Your task to perform on an android device: open chrome privacy settings Image 0: 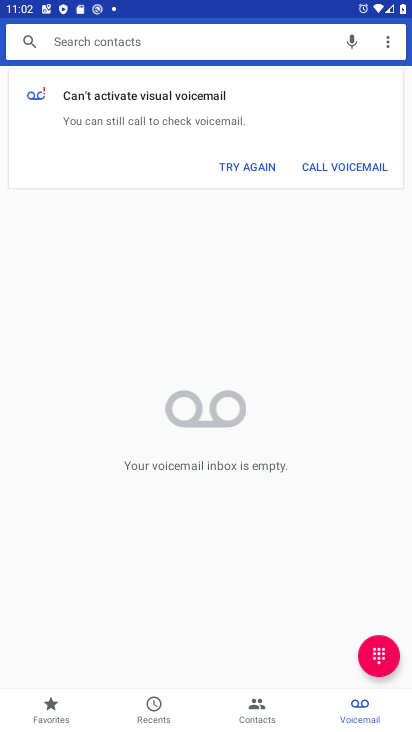
Step 0: press home button
Your task to perform on an android device: open chrome privacy settings Image 1: 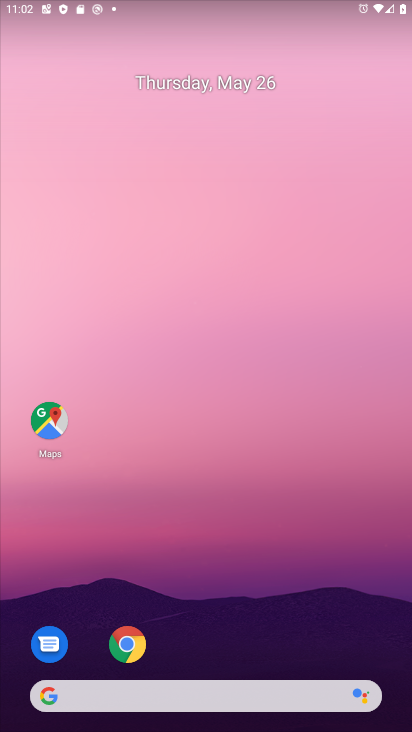
Step 1: click (139, 644)
Your task to perform on an android device: open chrome privacy settings Image 2: 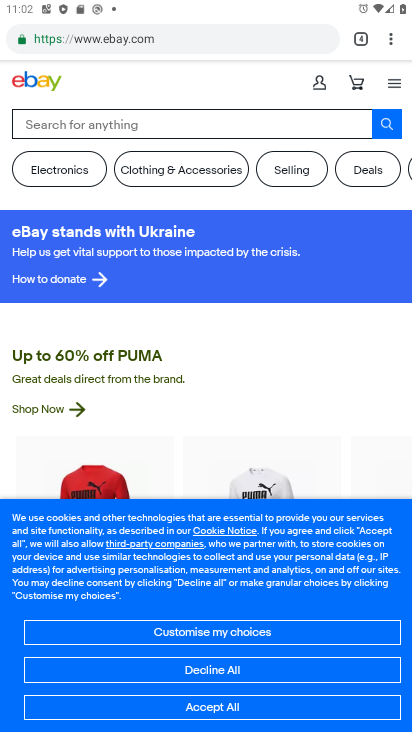
Step 2: click (392, 41)
Your task to perform on an android device: open chrome privacy settings Image 3: 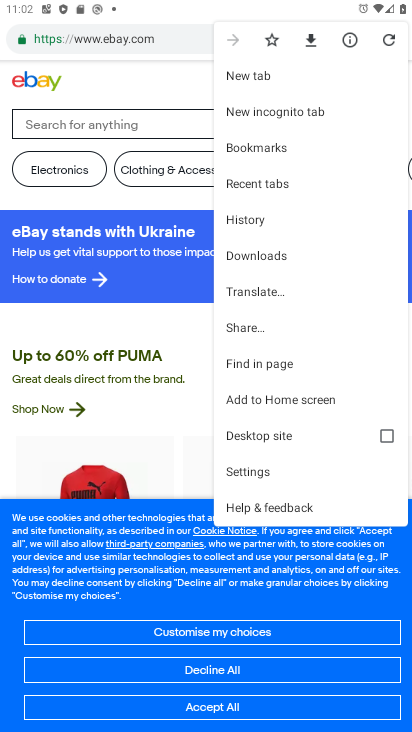
Step 3: click (273, 468)
Your task to perform on an android device: open chrome privacy settings Image 4: 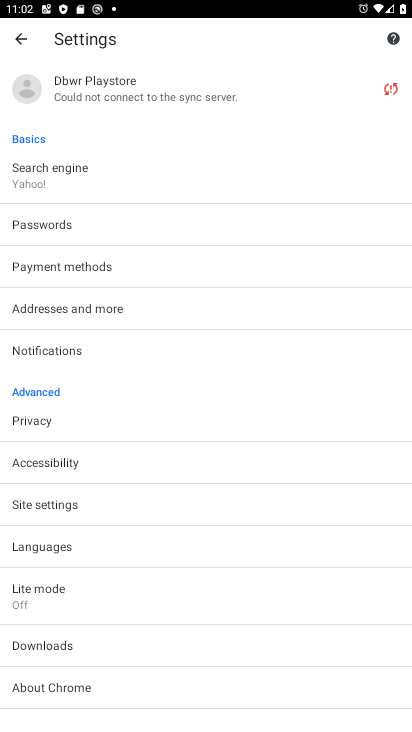
Step 4: click (103, 416)
Your task to perform on an android device: open chrome privacy settings Image 5: 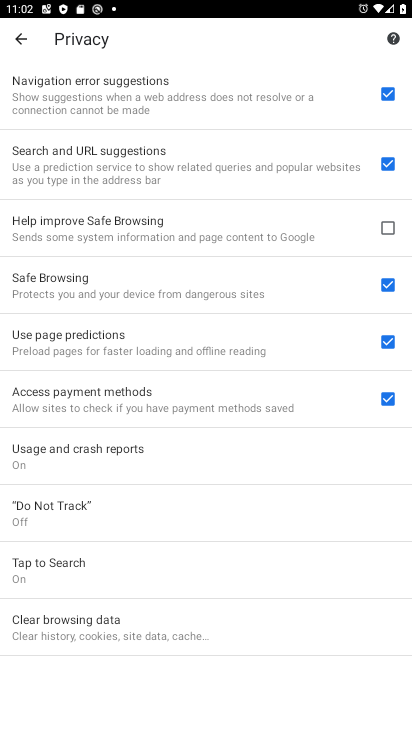
Step 5: task complete